Your task to perform on an android device: Open Google Image 0: 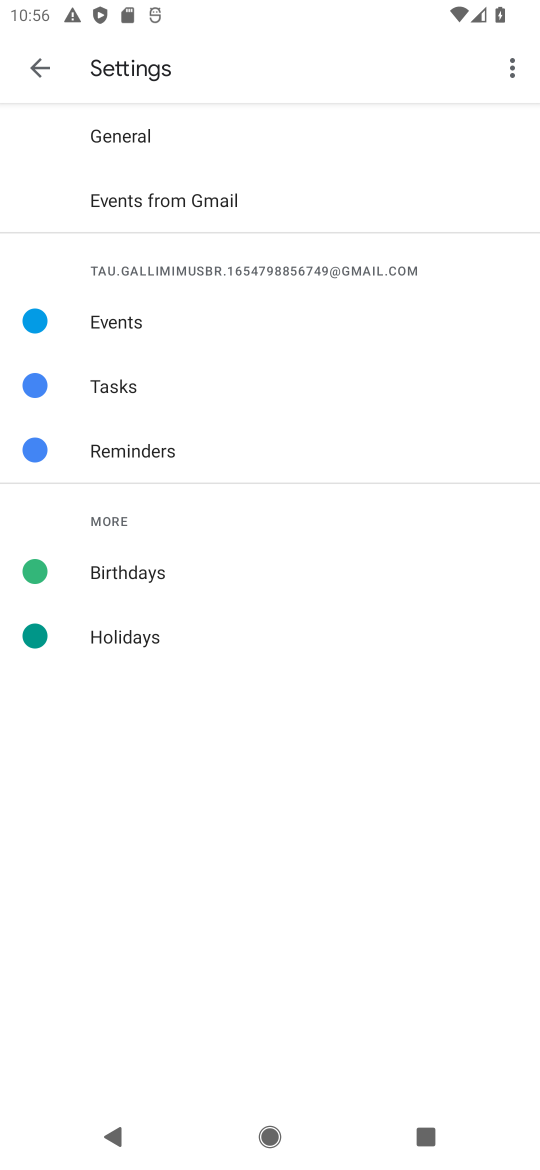
Step 0: press home button
Your task to perform on an android device: Open Google Image 1: 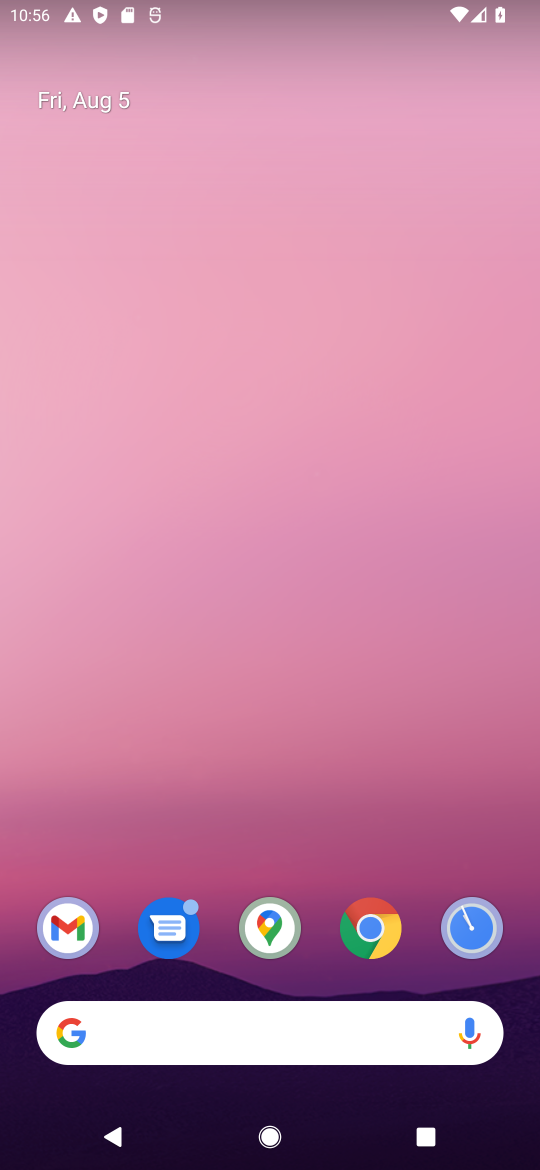
Step 1: drag from (307, 977) to (231, 25)
Your task to perform on an android device: Open Google Image 2: 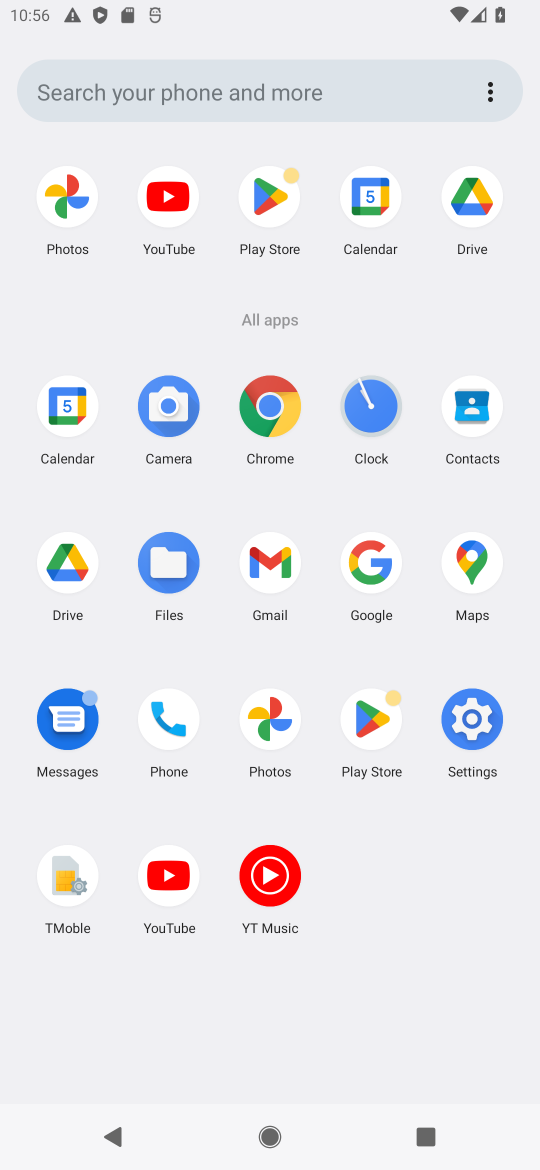
Step 2: click (370, 573)
Your task to perform on an android device: Open Google Image 3: 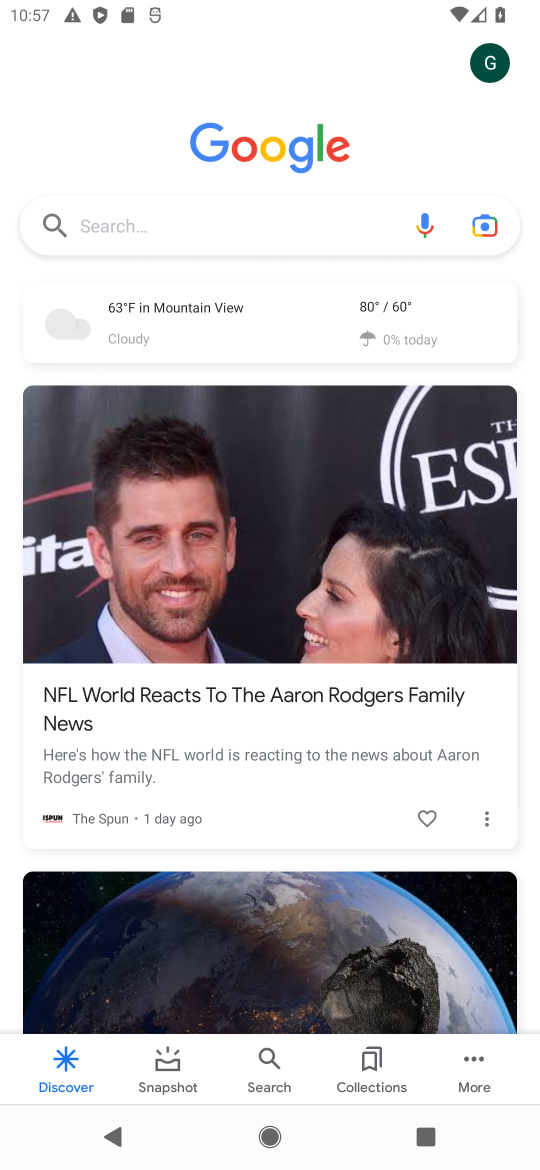
Step 3: task complete